Your task to perform on an android device: turn off sleep mode Image 0: 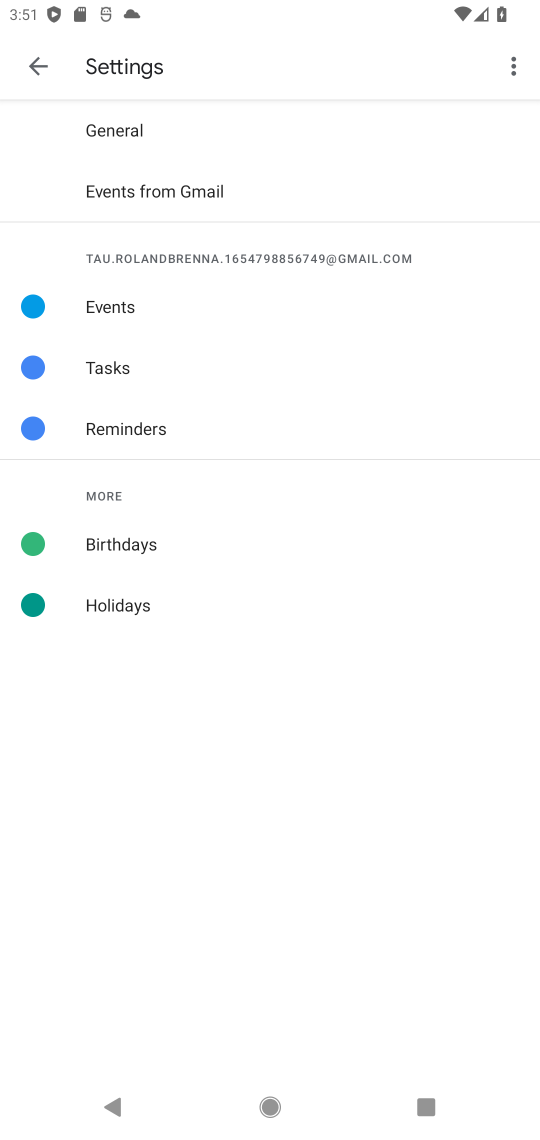
Step 0: press home button
Your task to perform on an android device: turn off sleep mode Image 1: 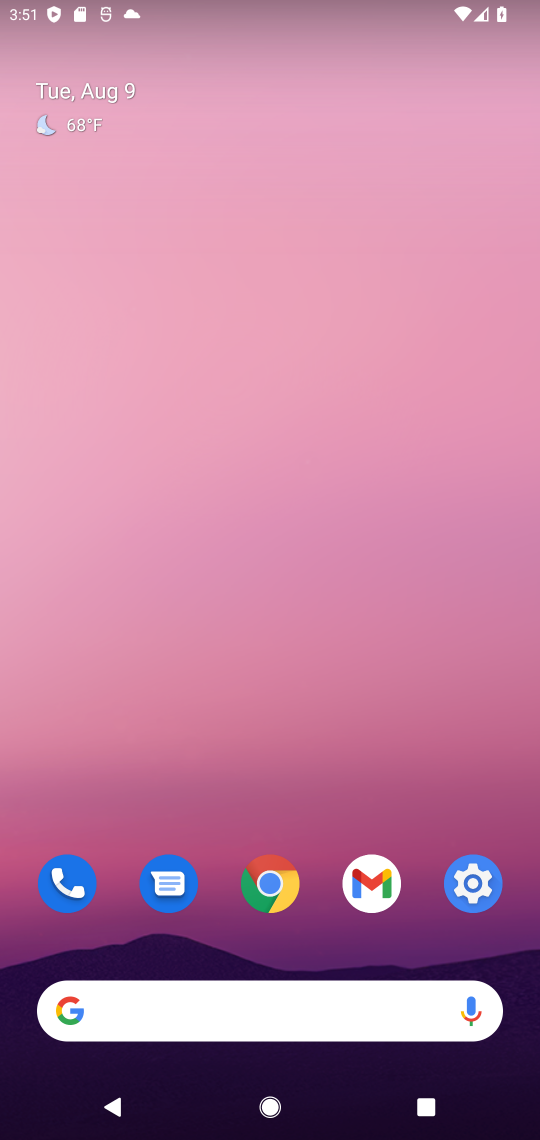
Step 1: drag from (329, 1040) to (220, 318)
Your task to perform on an android device: turn off sleep mode Image 2: 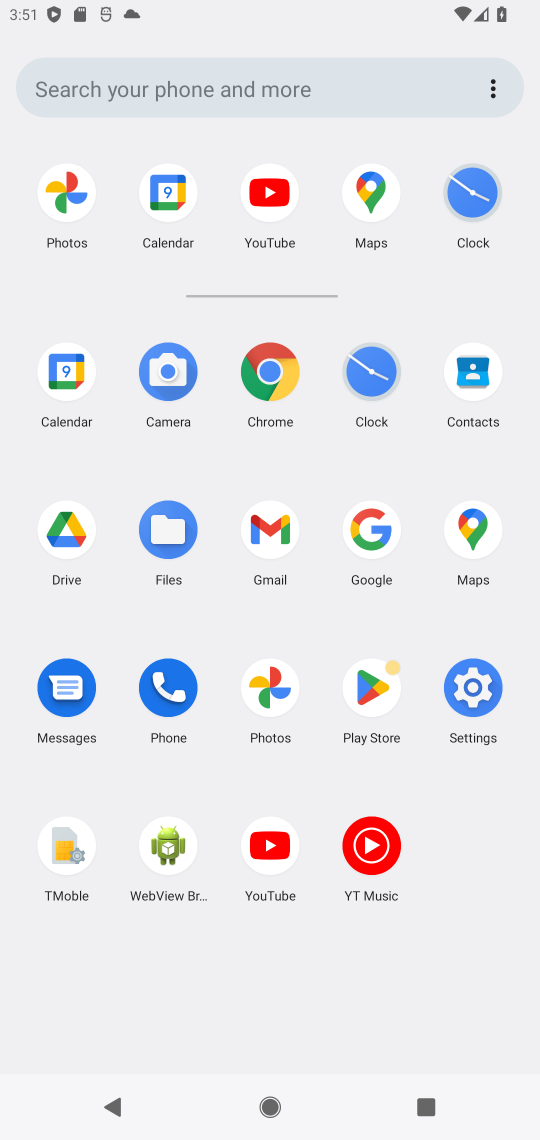
Step 2: click (460, 705)
Your task to perform on an android device: turn off sleep mode Image 3: 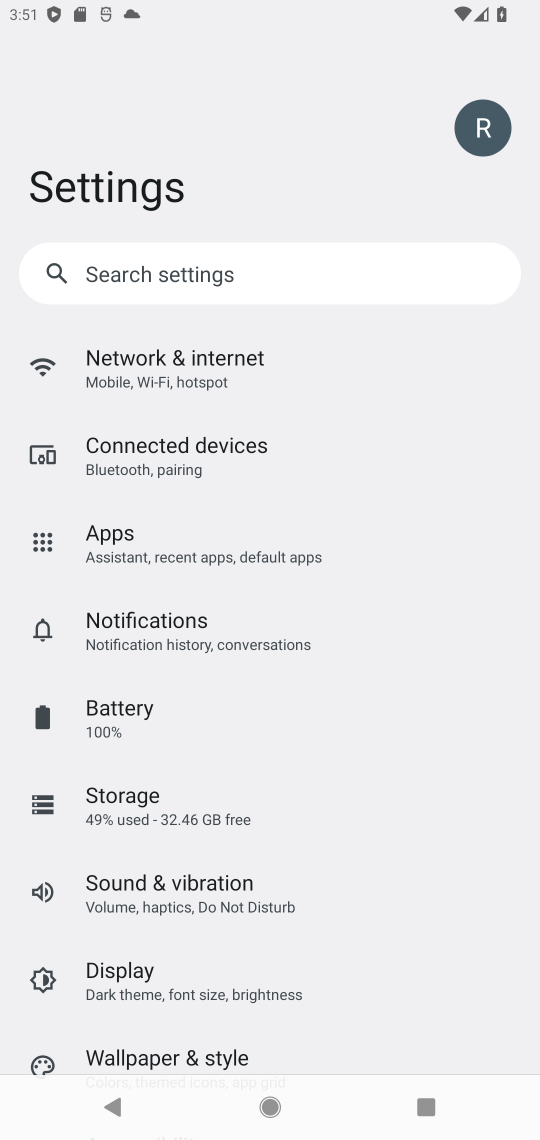
Step 3: click (148, 267)
Your task to perform on an android device: turn off sleep mode Image 4: 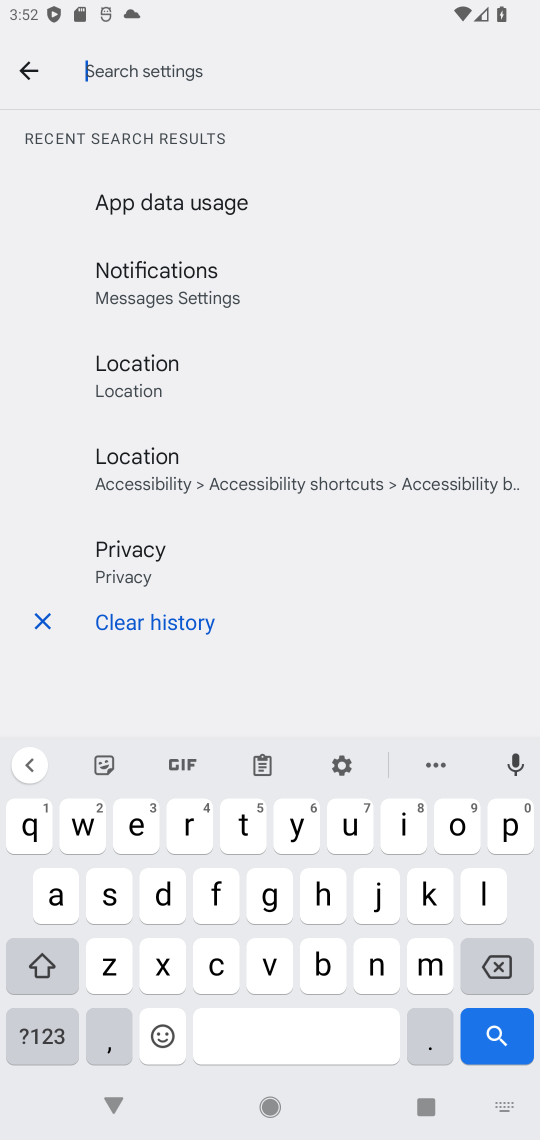
Step 4: click (104, 902)
Your task to perform on an android device: turn off sleep mode Image 5: 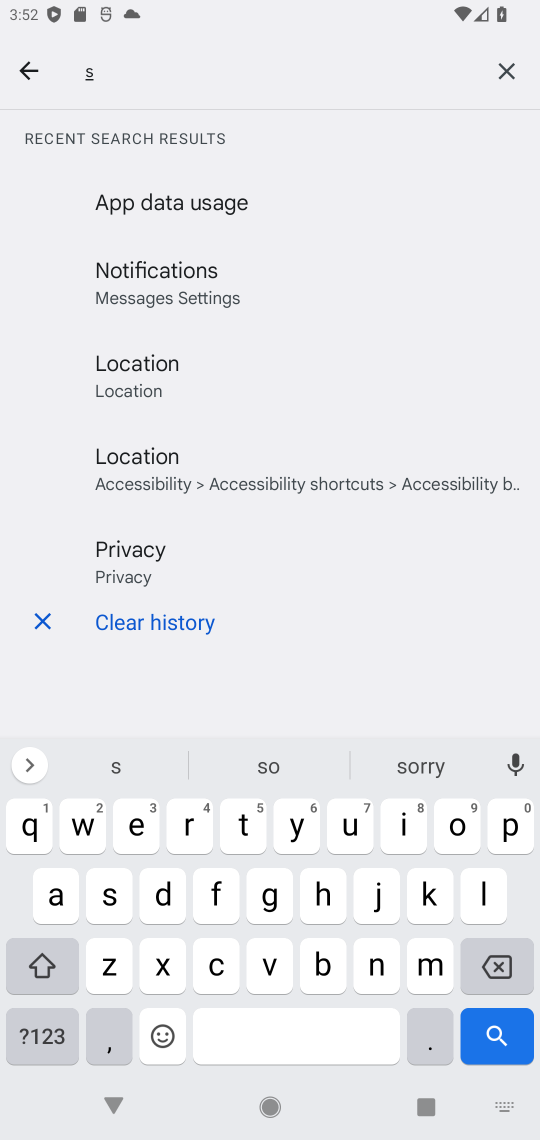
Step 5: click (480, 887)
Your task to perform on an android device: turn off sleep mode Image 6: 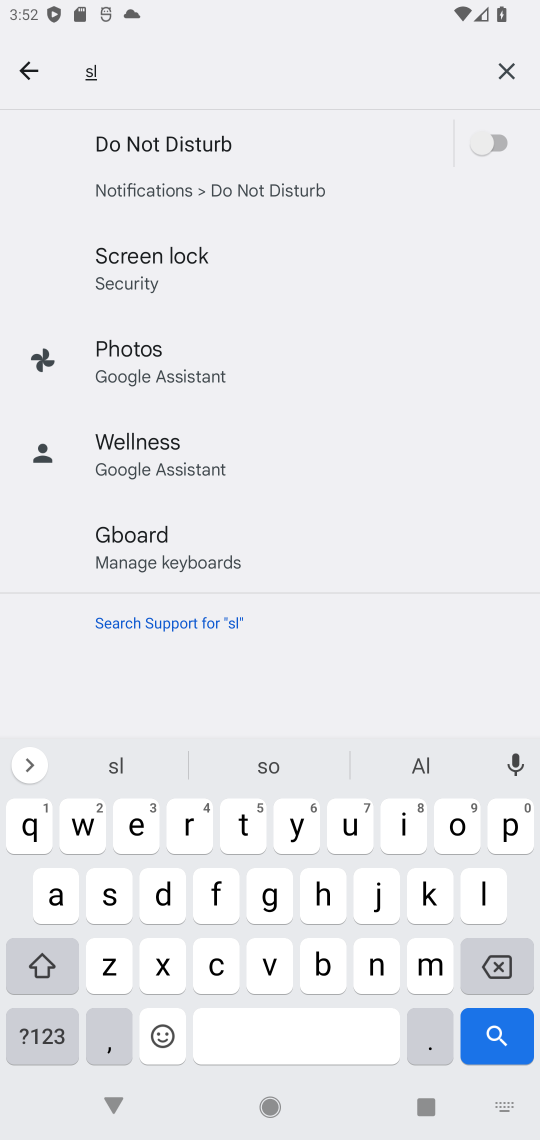
Step 6: click (194, 161)
Your task to perform on an android device: turn off sleep mode Image 7: 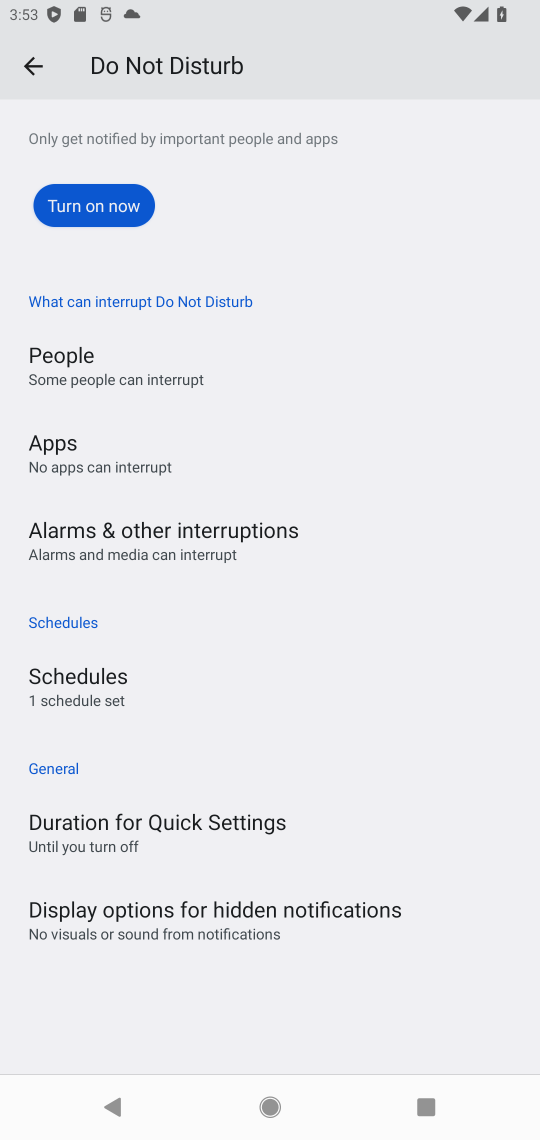
Step 7: task complete